Your task to perform on an android device: allow cookies in the chrome app Image 0: 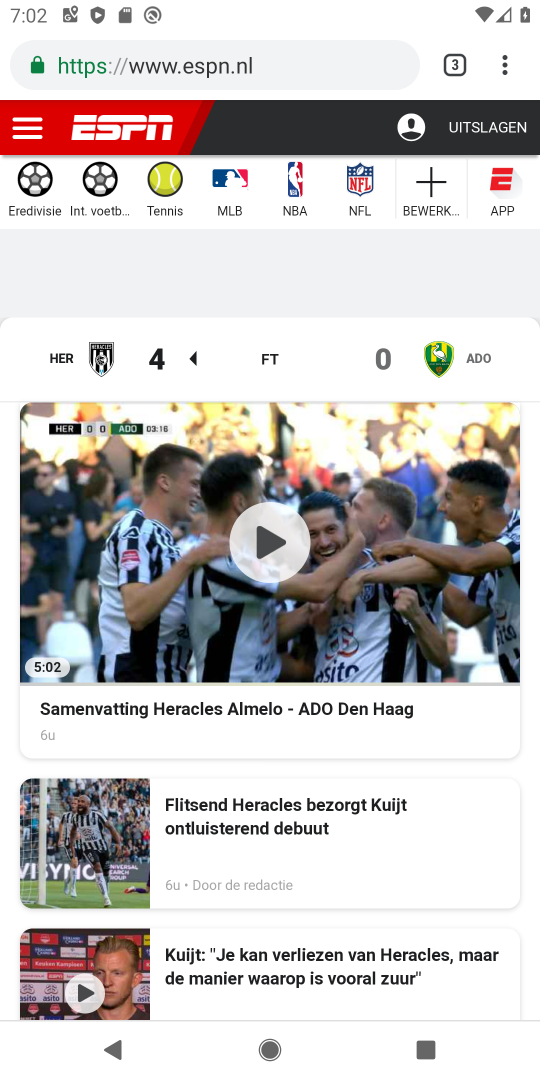
Step 0: click (506, 55)
Your task to perform on an android device: allow cookies in the chrome app Image 1: 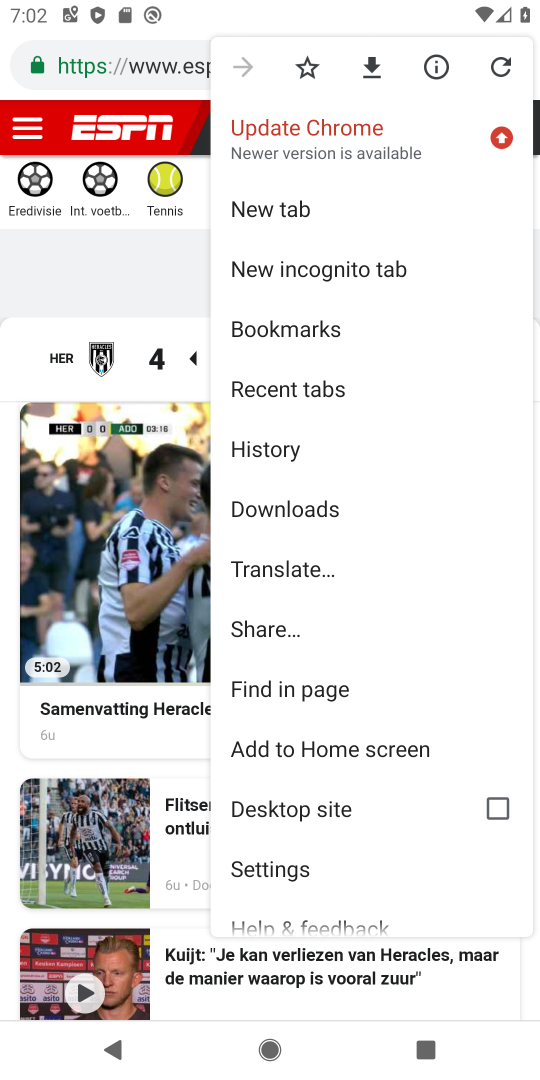
Step 1: click (284, 863)
Your task to perform on an android device: allow cookies in the chrome app Image 2: 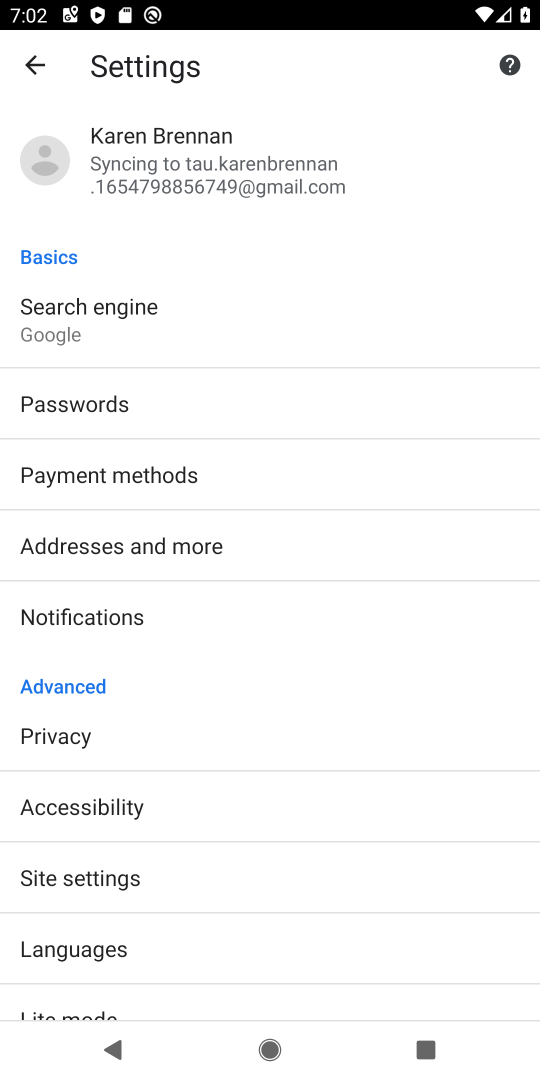
Step 2: click (76, 876)
Your task to perform on an android device: allow cookies in the chrome app Image 3: 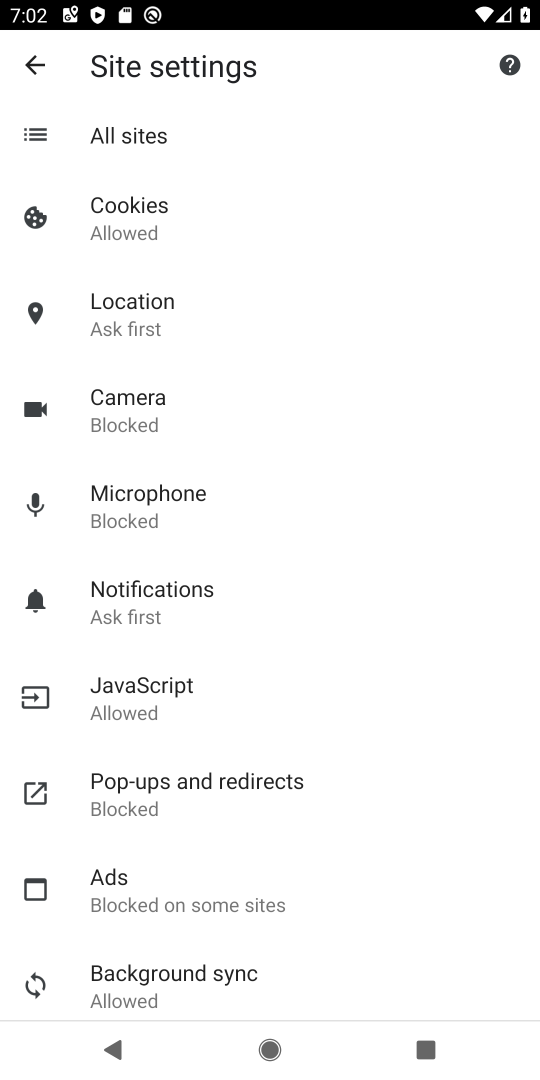
Step 3: click (130, 209)
Your task to perform on an android device: allow cookies in the chrome app Image 4: 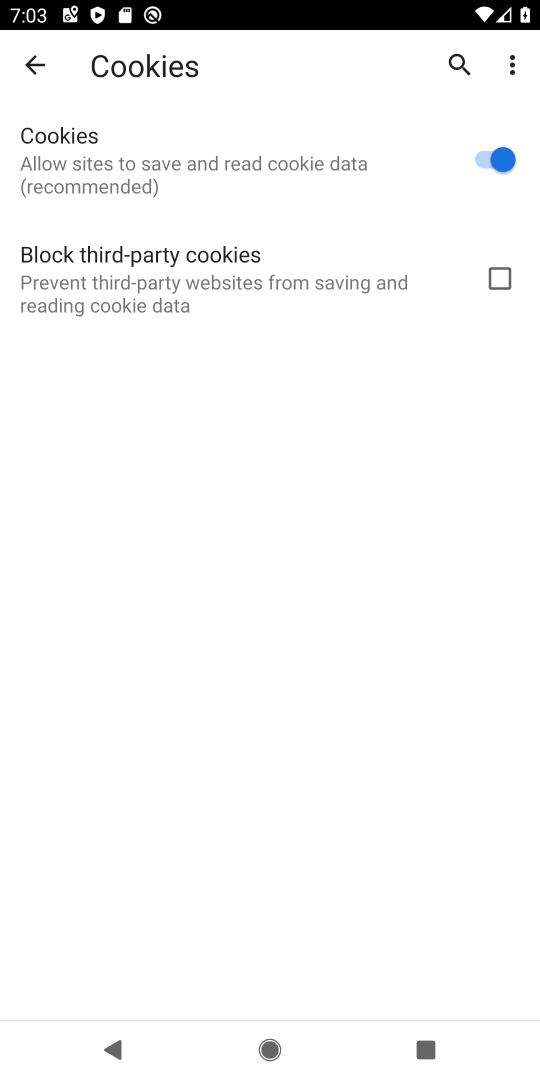
Step 4: task complete